Your task to perform on an android device: Search for usb-a to usb-b on ebay.com, select the first entry, add it to the cart, then select checkout. Image 0: 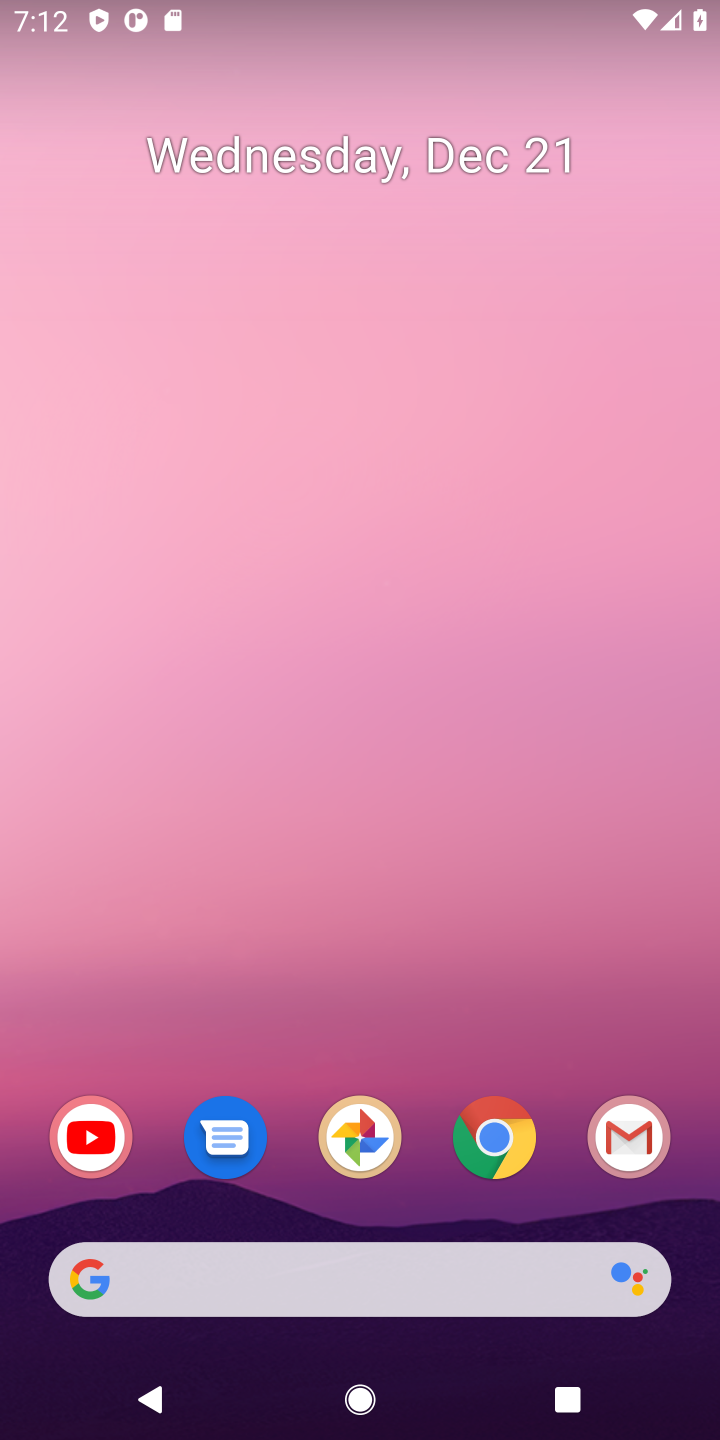
Step 0: click (498, 1151)
Your task to perform on an android device: Search for usb-a to usb-b on ebay.com, select the first entry, add it to the cart, then select checkout. Image 1: 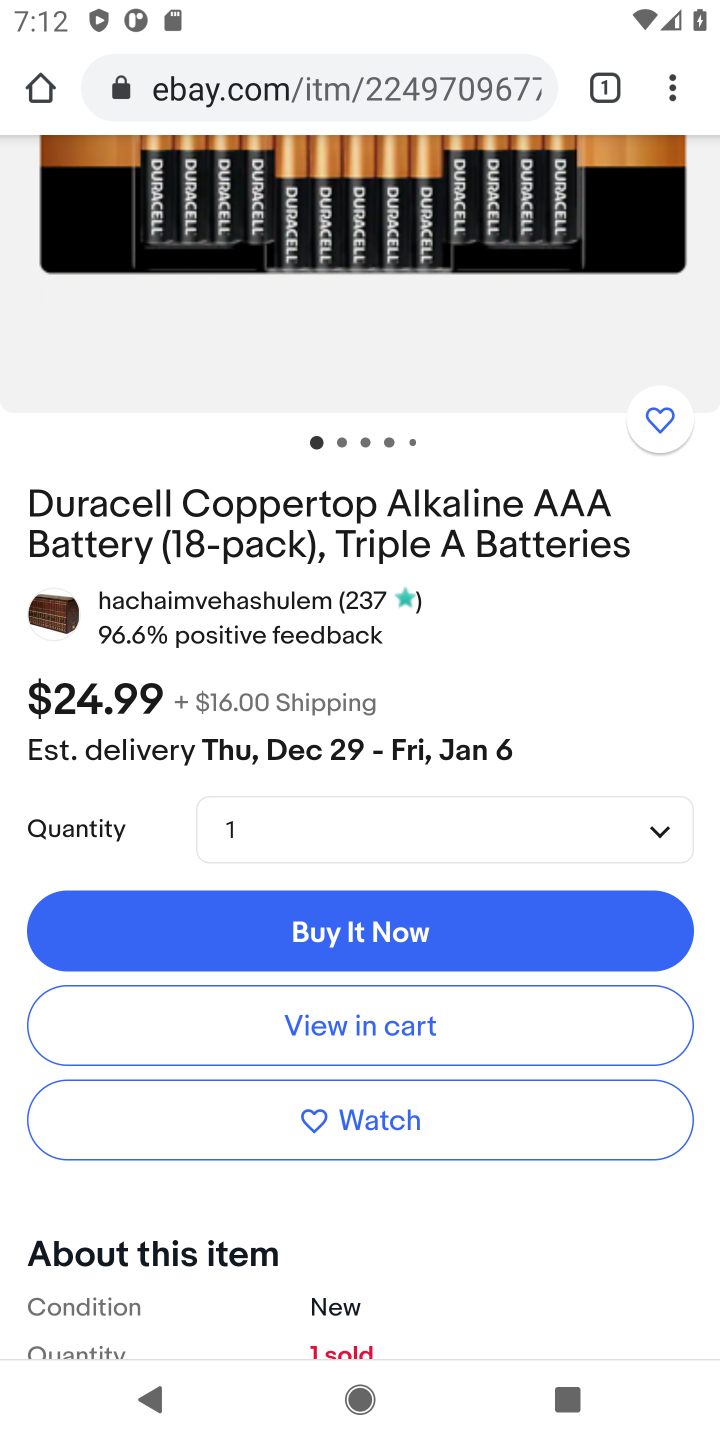
Step 1: drag from (474, 442) to (447, 1047)
Your task to perform on an android device: Search for usb-a to usb-b on ebay.com, select the first entry, add it to the cart, then select checkout. Image 2: 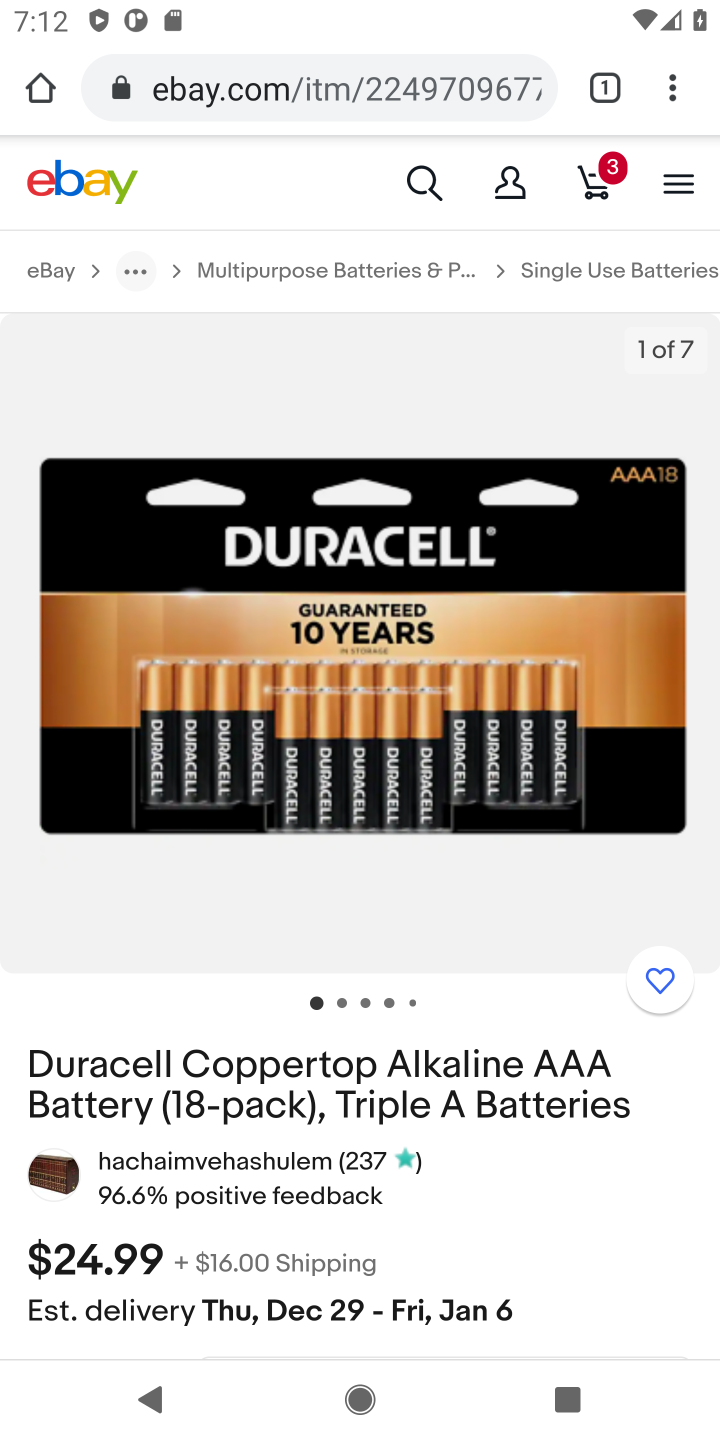
Step 2: click (420, 180)
Your task to perform on an android device: Search for usb-a to usb-b on ebay.com, select the first entry, add it to the cart, then select checkout. Image 3: 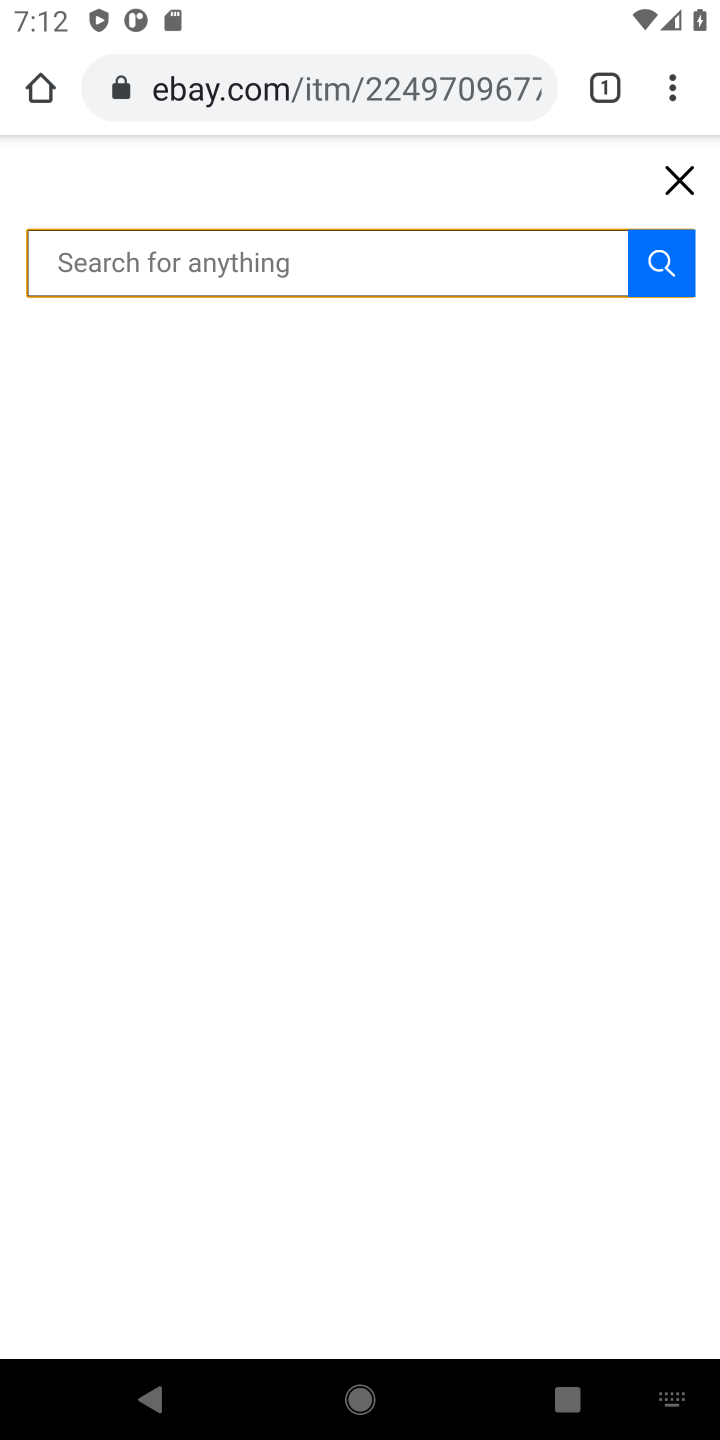
Step 3: type "usb-a to usb-b"
Your task to perform on an android device: Search for usb-a to usb-b on ebay.com, select the first entry, add it to the cart, then select checkout. Image 4: 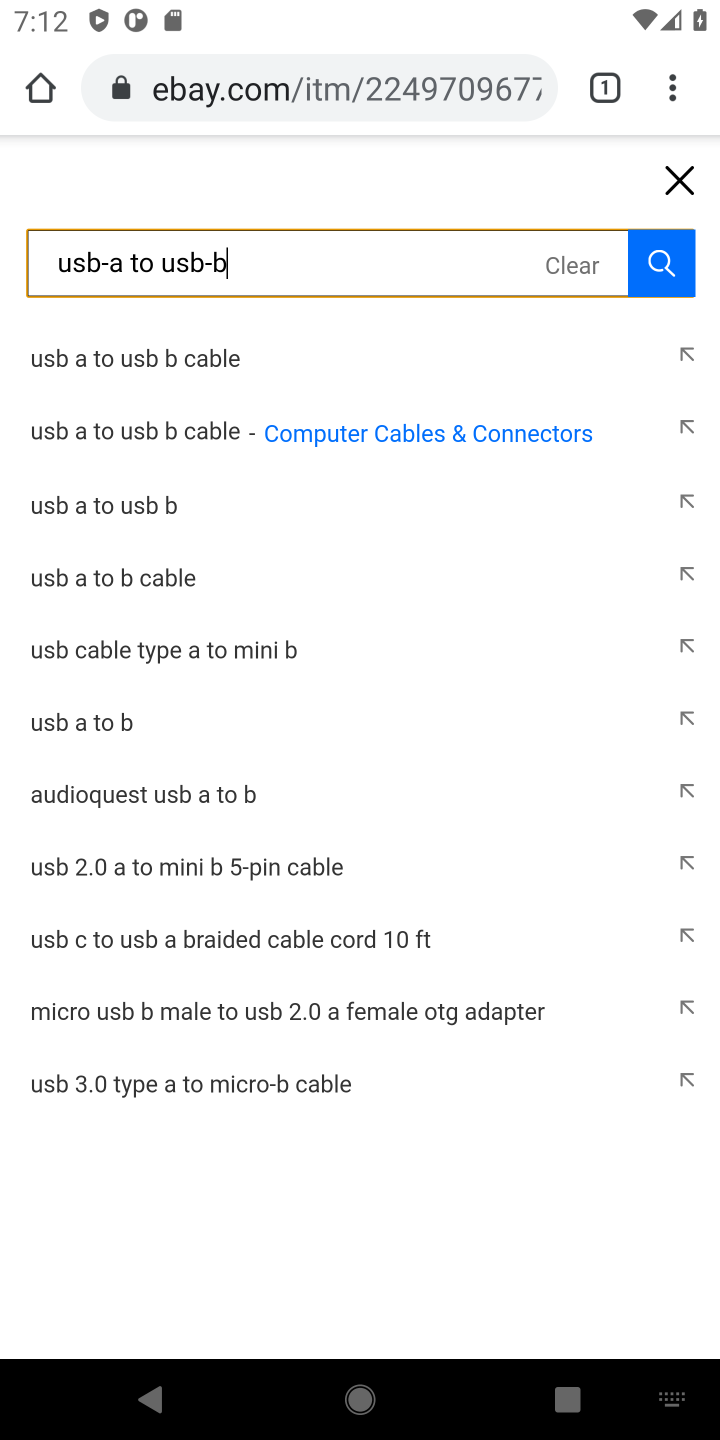
Step 4: click (639, 256)
Your task to perform on an android device: Search for usb-a to usb-b on ebay.com, select the first entry, add it to the cart, then select checkout. Image 5: 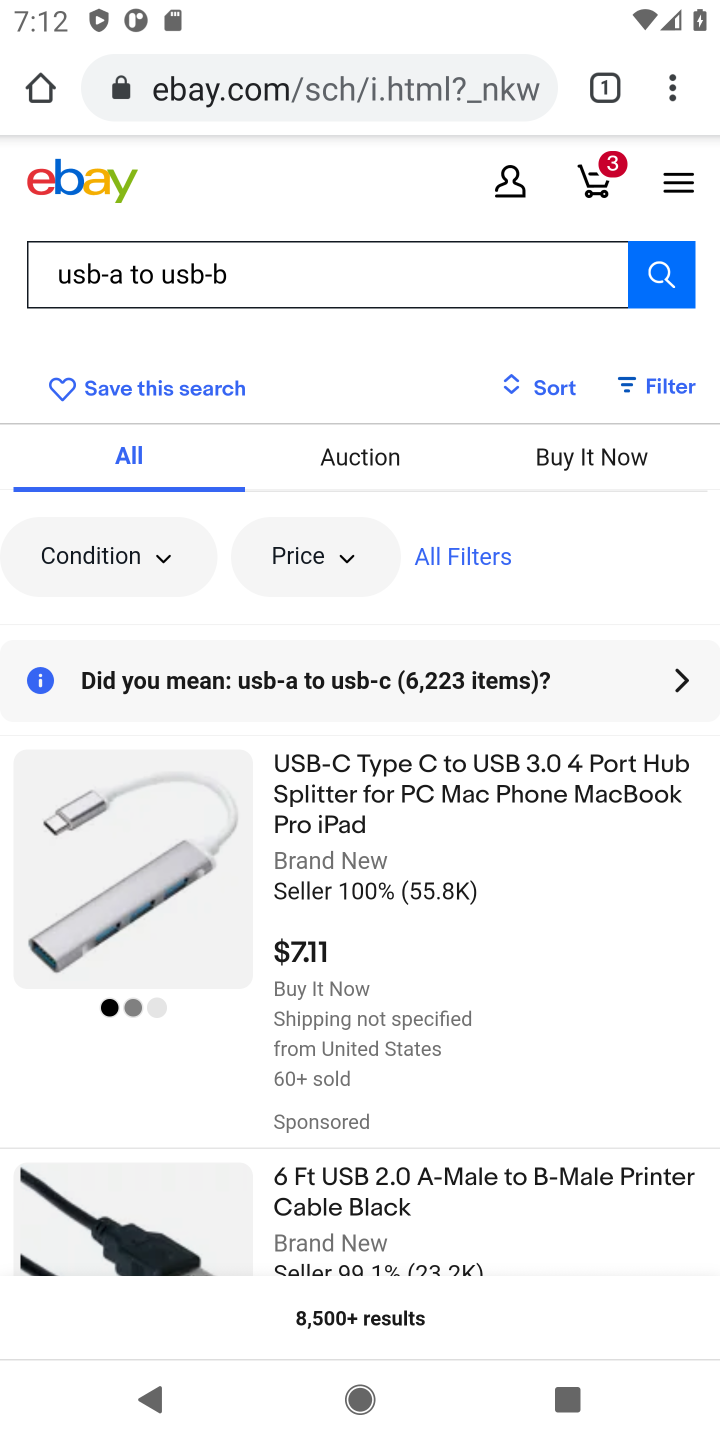
Step 5: task complete